Your task to perform on an android device: Go to network settings Image 0: 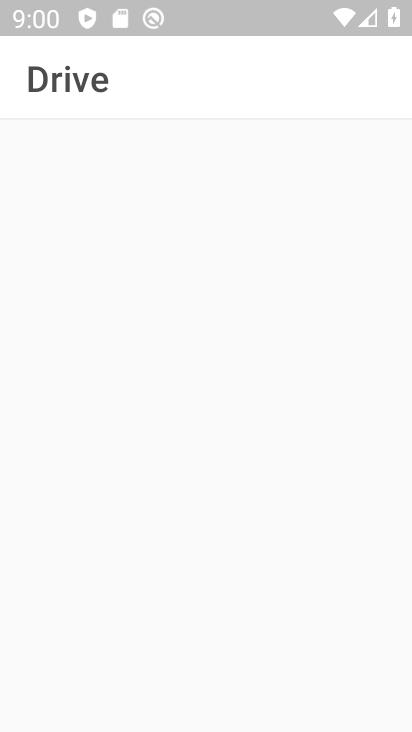
Step 0: press home button
Your task to perform on an android device: Go to network settings Image 1: 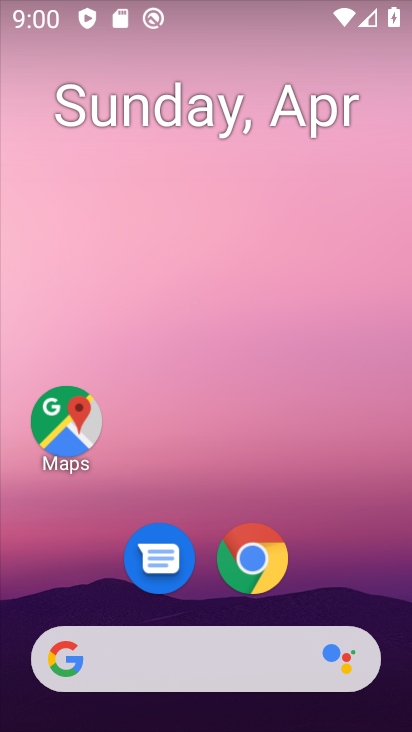
Step 1: drag from (362, 558) to (354, 80)
Your task to perform on an android device: Go to network settings Image 2: 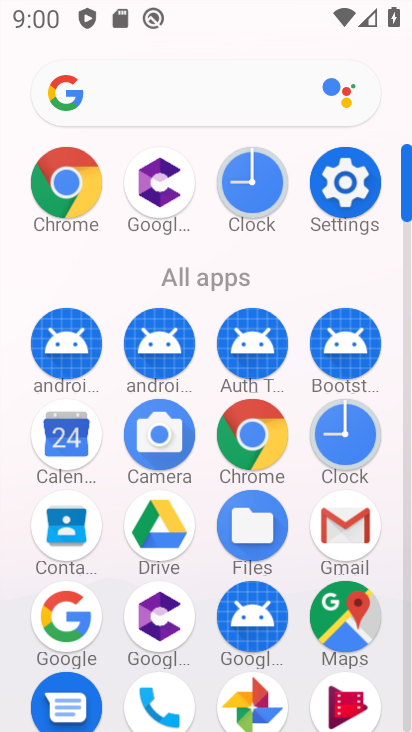
Step 2: click (344, 191)
Your task to perform on an android device: Go to network settings Image 3: 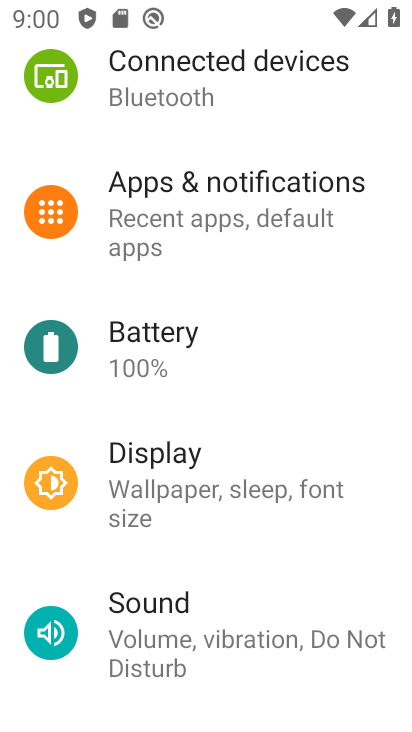
Step 3: drag from (386, 299) to (379, 475)
Your task to perform on an android device: Go to network settings Image 4: 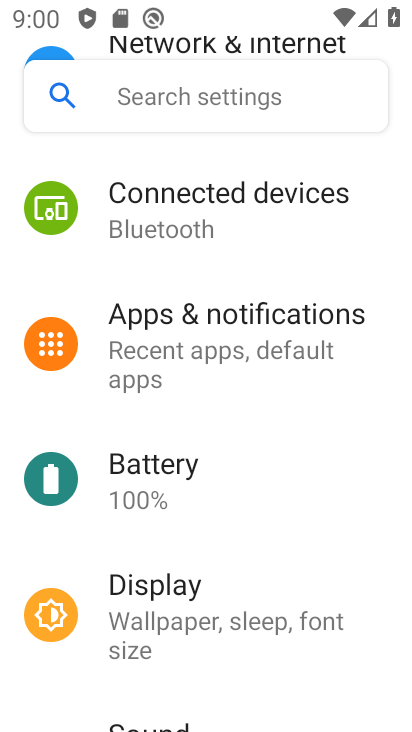
Step 4: drag from (377, 260) to (364, 466)
Your task to perform on an android device: Go to network settings Image 5: 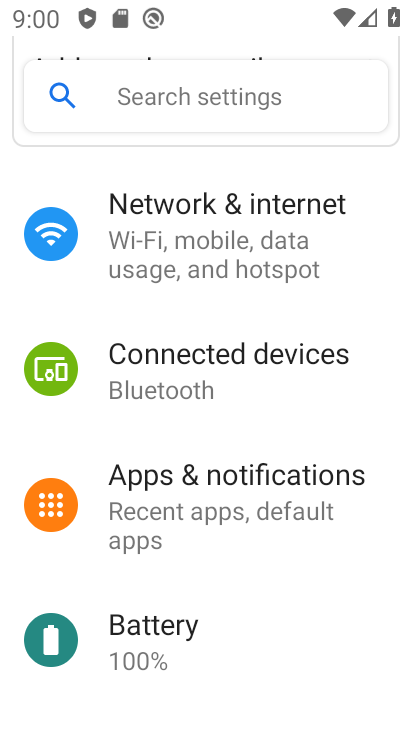
Step 5: drag from (374, 224) to (377, 420)
Your task to perform on an android device: Go to network settings Image 6: 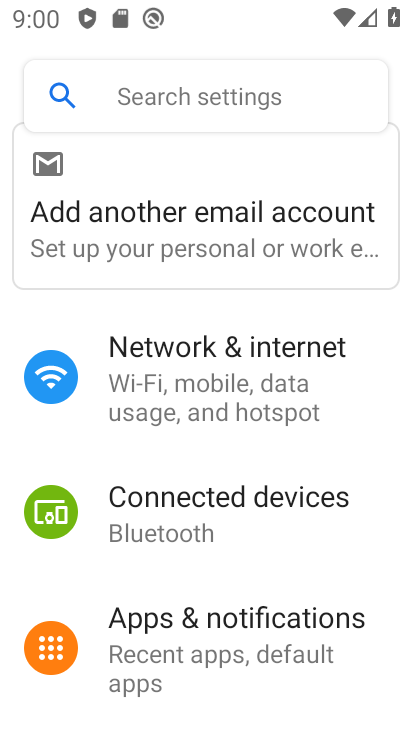
Step 6: click (236, 387)
Your task to perform on an android device: Go to network settings Image 7: 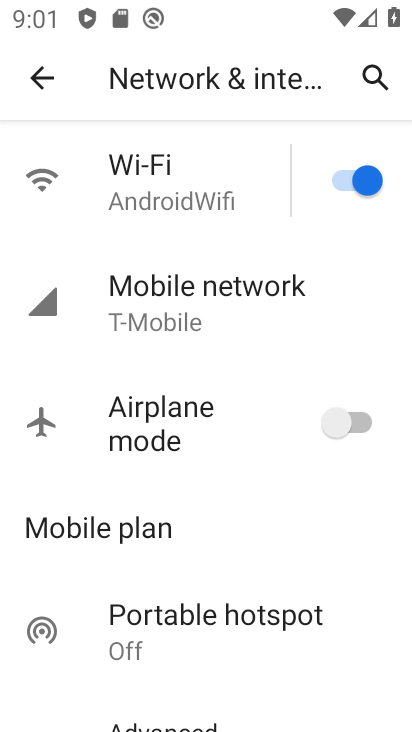
Step 7: task complete